Your task to perform on an android device: turn on showing notifications on the lock screen Image 0: 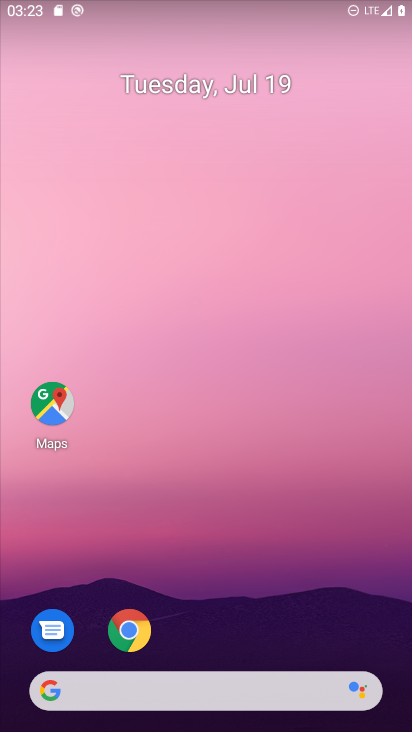
Step 0: drag from (390, 643) to (355, 114)
Your task to perform on an android device: turn on showing notifications on the lock screen Image 1: 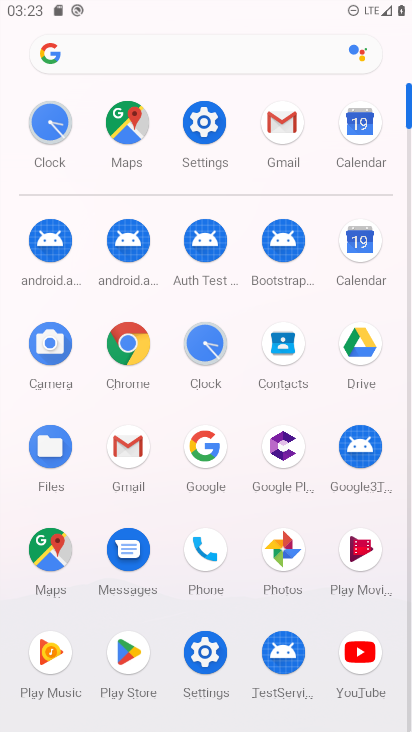
Step 1: click (206, 651)
Your task to perform on an android device: turn on showing notifications on the lock screen Image 2: 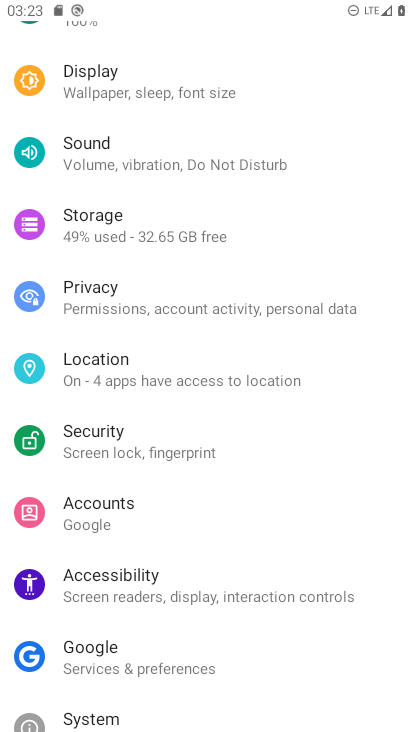
Step 2: drag from (324, 164) to (307, 471)
Your task to perform on an android device: turn on showing notifications on the lock screen Image 3: 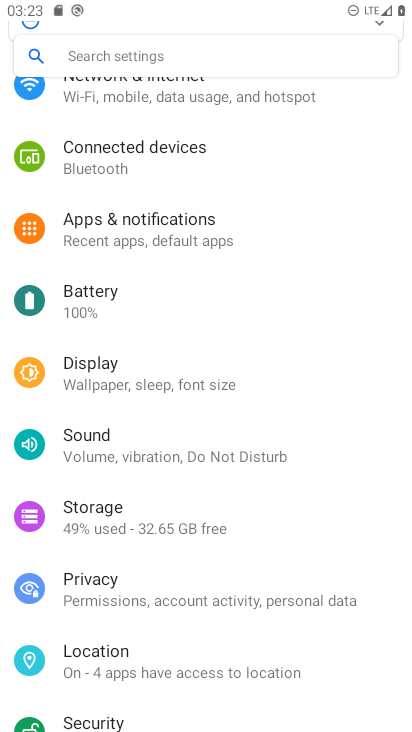
Step 3: click (116, 212)
Your task to perform on an android device: turn on showing notifications on the lock screen Image 4: 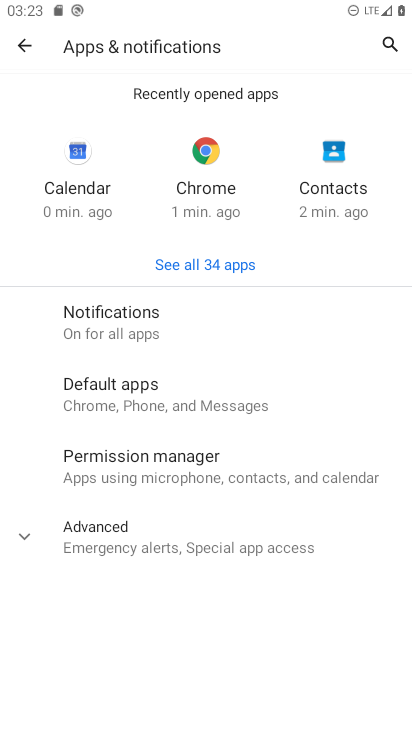
Step 4: click (87, 311)
Your task to perform on an android device: turn on showing notifications on the lock screen Image 5: 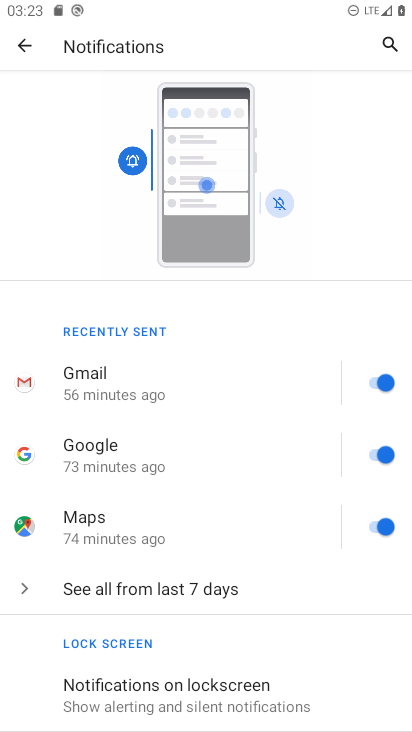
Step 5: drag from (204, 669) to (198, 283)
Your task to perform on an android device: turn on showing notifications on the lock screen Image 6: 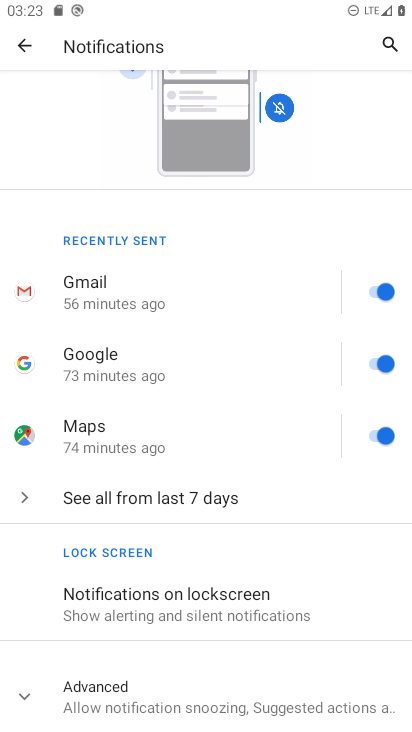
Step 6: click (173, 611)
Your task to perform on an android device: turn on showing notifications on the lock screen Image 7: 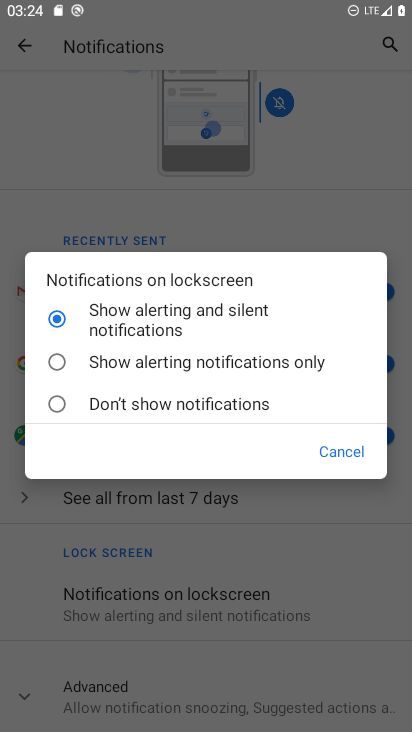
Step 7: task complete